Your task to perform on an android device: turn off notifications in google photos Image 0: 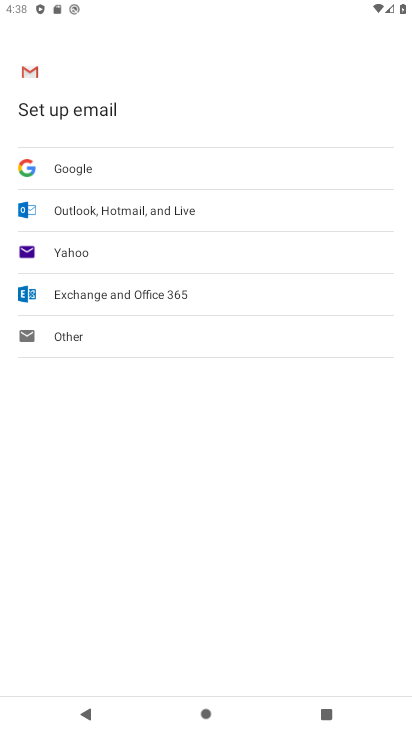
Step 0: press home button
Your task to perform on an android device: turn off notifications in google photos Image 1: 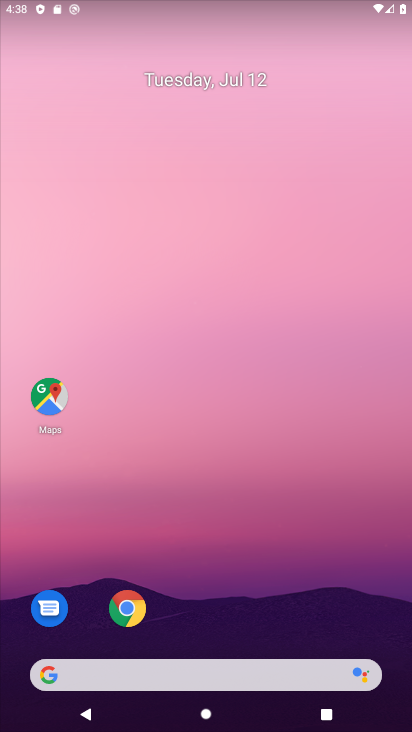
Step 1: drag from (212, 644) to (134, 141)
Your task to perform on an android device: turn off notifications in google photos Image 2: 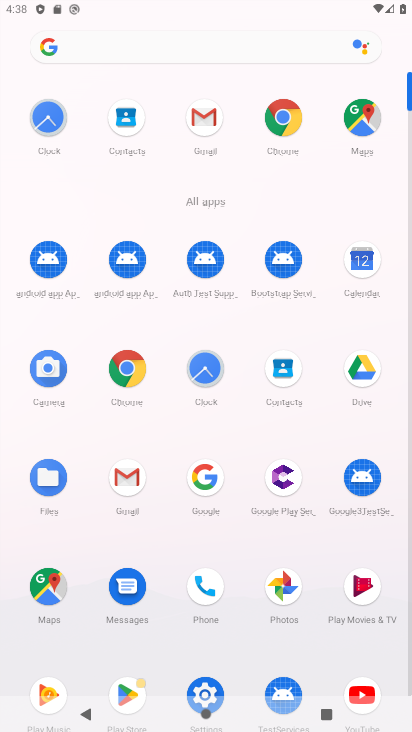
Step 2: click (279, 568)
Your task to perform on an android device: turn off notifications in google photos Image 3: 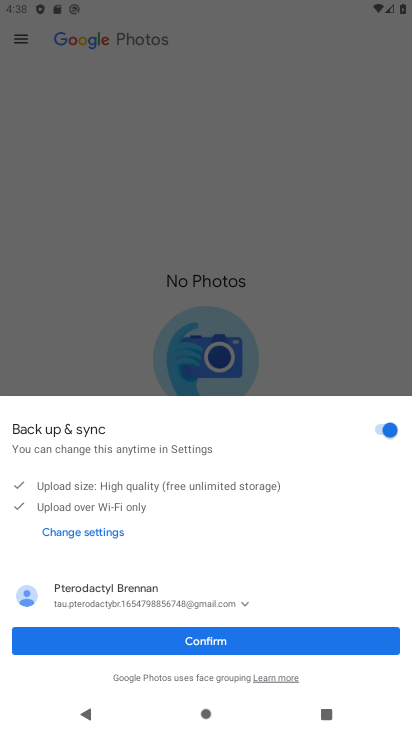
Step 3: click (111, 638)
Your task to perform on an android device: turn off notifications in google photos Image 4: 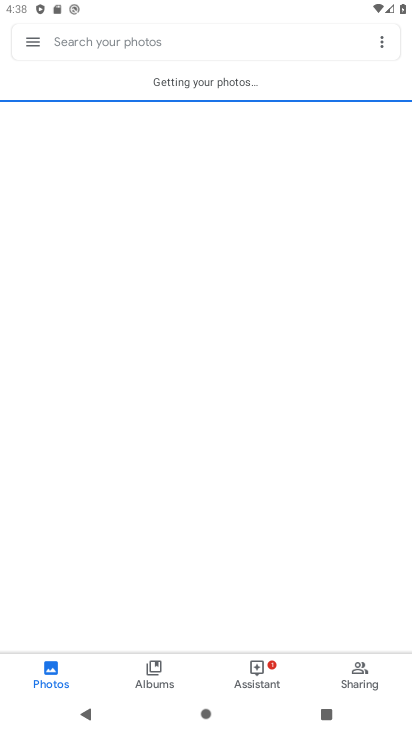
Step 4: click (36, 40)
Your task to perform on an android device: turn off notifications in google photos Image 5: 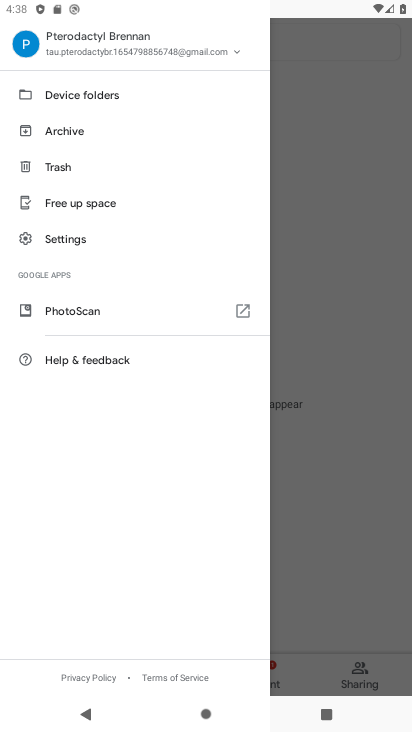
Step 5: click (80, 239)
Your task to perform on an android device: turn off notifications in google photos Image 6: 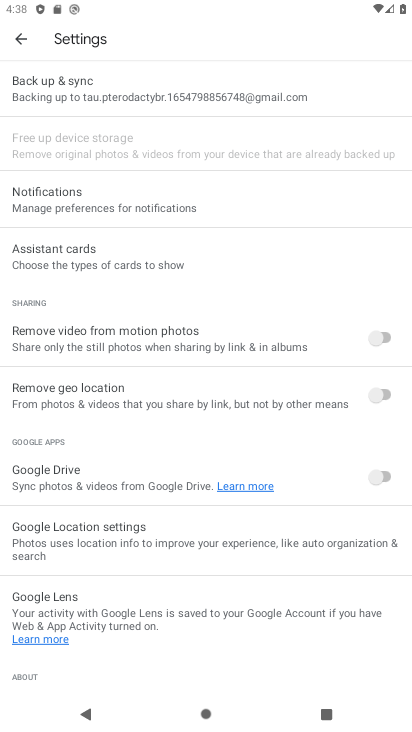
Step 6: click (114, 207)
Your task to perform on an android device: turn off notifications in google photos Image 7: 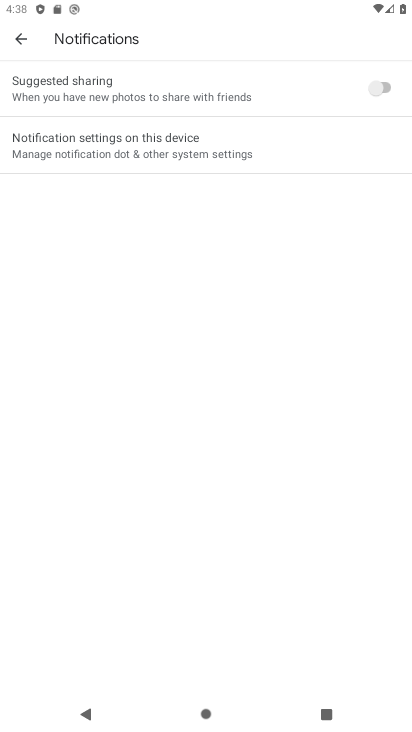
Step 7: click (130, 130)
Your task to perform on an android device: turn off notifications in google photos Image 8: 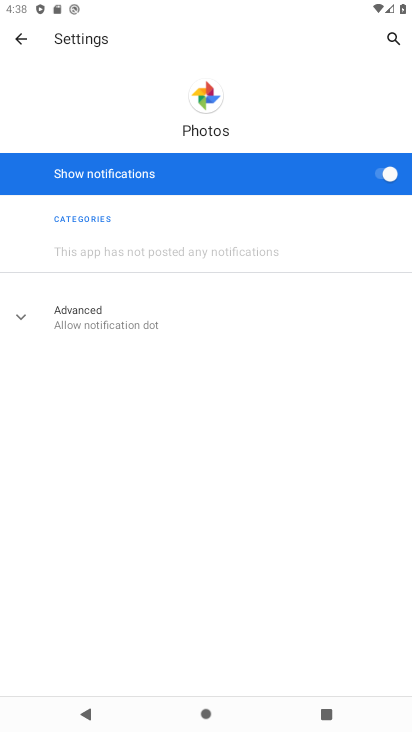
Step 8: click (381, 177)
Your task to perform on an android device: turn off notifications in google photos Image 9: 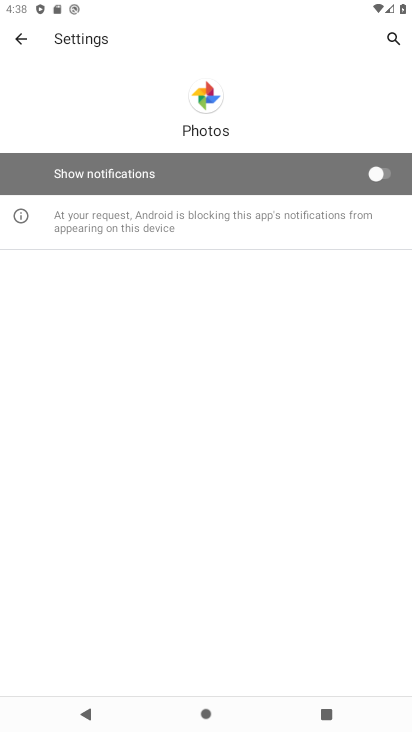
Step 9: task complete